Your task to perform on an android device: Open Reddit.com Image 0: 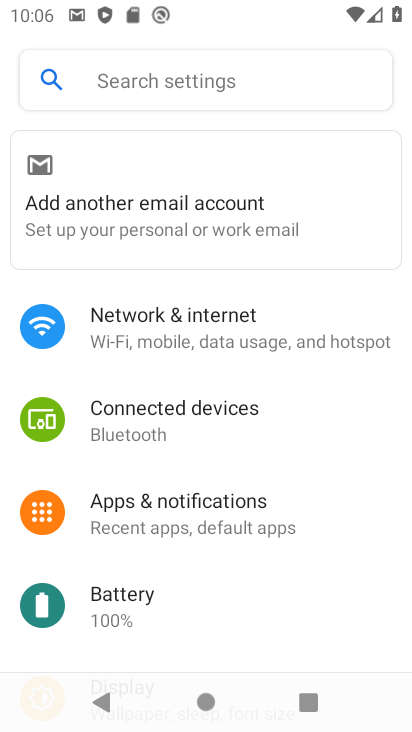
Step 0: press home button
Your task to perform on an android device: Open Reddit.com Image 1: 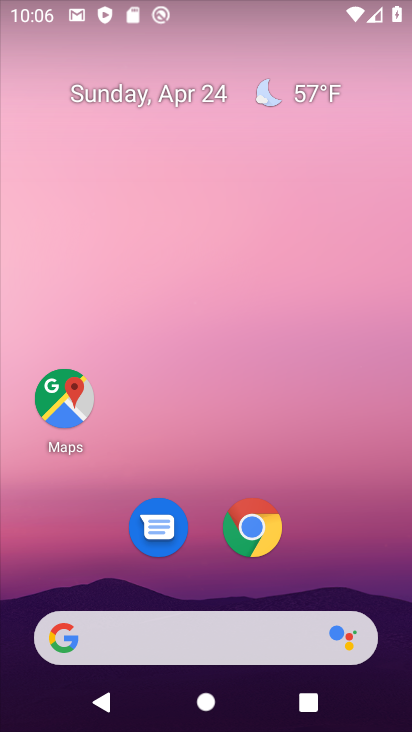
Step 1: drag from (246, 715) to (251, 14)
Your task to perform on an android device: Open Reddit.com Image 2: 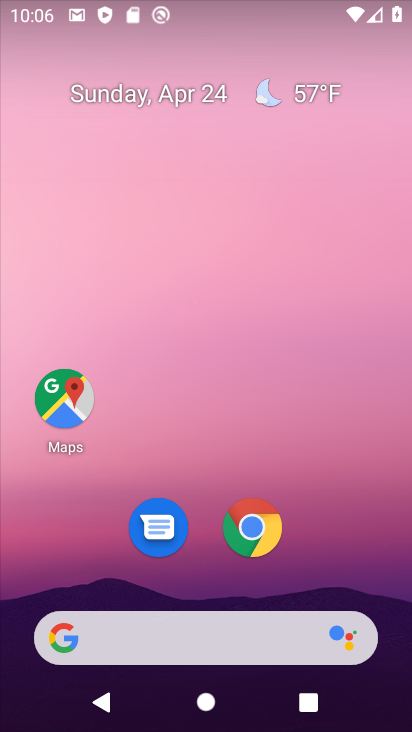
Step 2: drag from (271, 602) to (229, 90)
Your task to perform on an android device: Open Reddit.com Image 3: 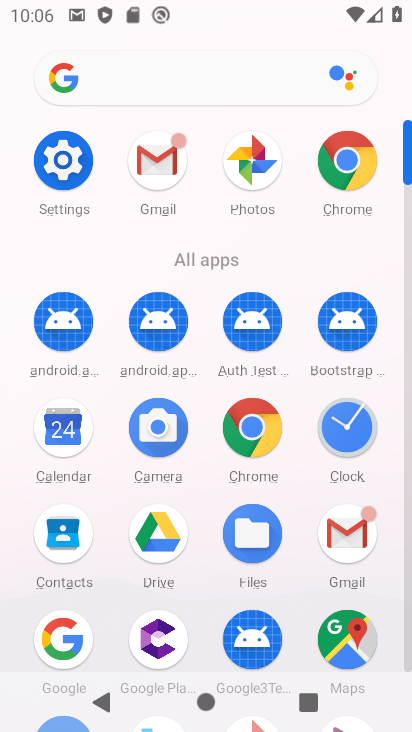
Step 3: click (348, 161)
Your task to perform on an android device: Open Reddit.com Image 4: 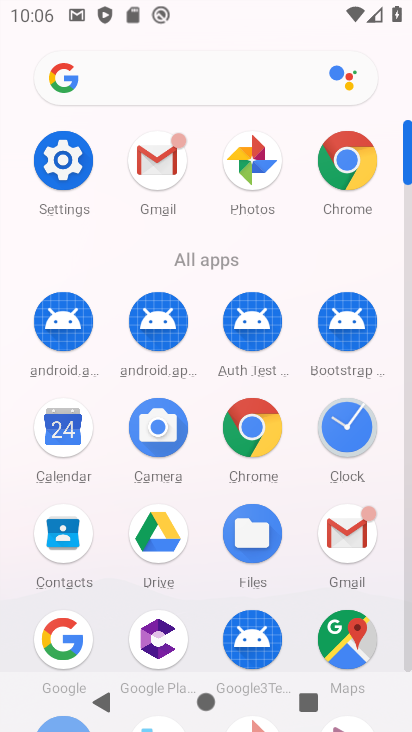
Step 4: click (357, 174)
Your task to perform on an android device: Open Reddit.com Image 5: 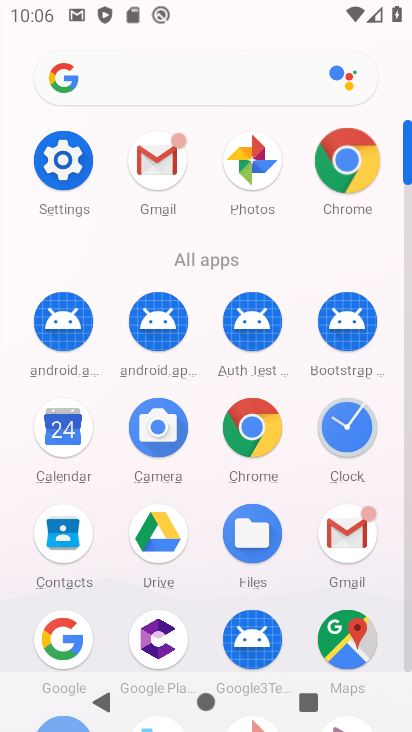
Step 5: click (359, 175)
Your task to perform on an android device: Open Reddit.com Image 6: 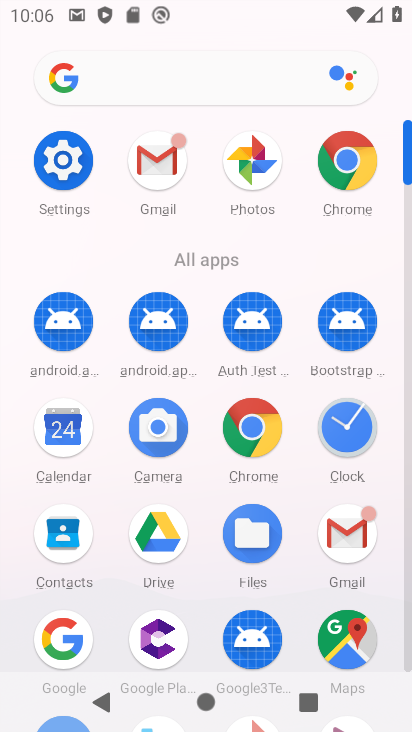
Step 6: click (347, 147)
Your task to perform on an android device: Open Reddit.com Image 7: 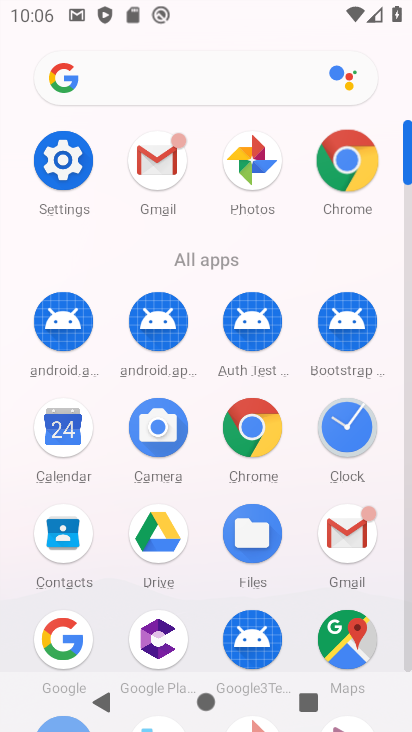
Step 7: click (347, 148)
Your task to perform on an android device: Open Reddit.com Image 8: 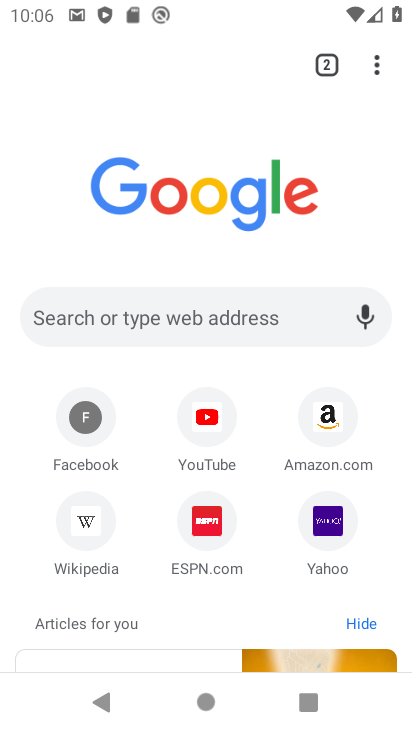
Step 8: click (86, 314)
Your task to perform on an android device: Open Reddit.com Image 9: 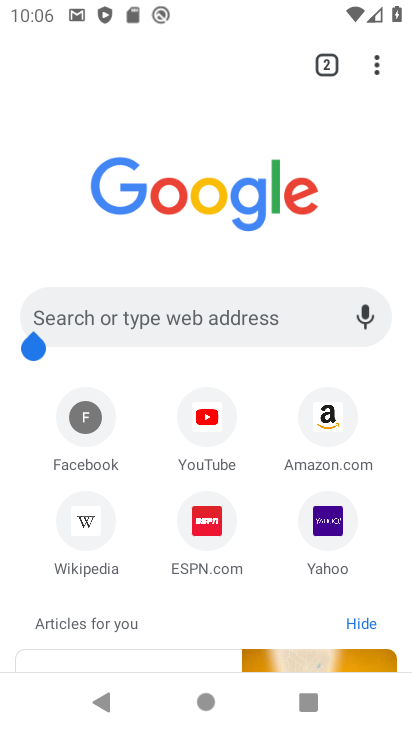
Step 9: click (86, 314)
Your task to perform on an android device: Open Reddit.com Image 10: 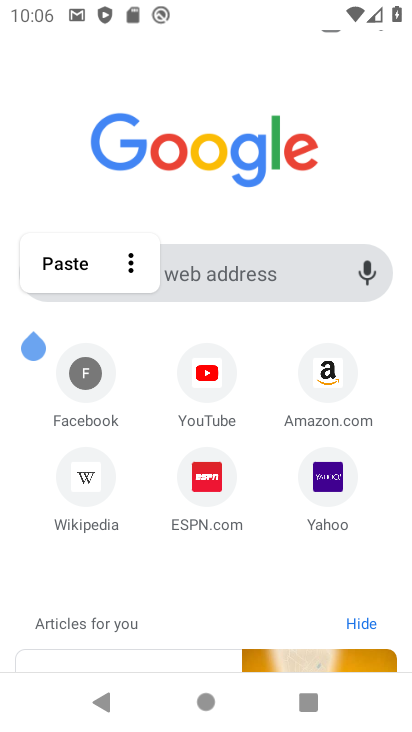
Step 10: click (86, 314)
Your task to perform on an android device: Open Reddit.com Image 11: 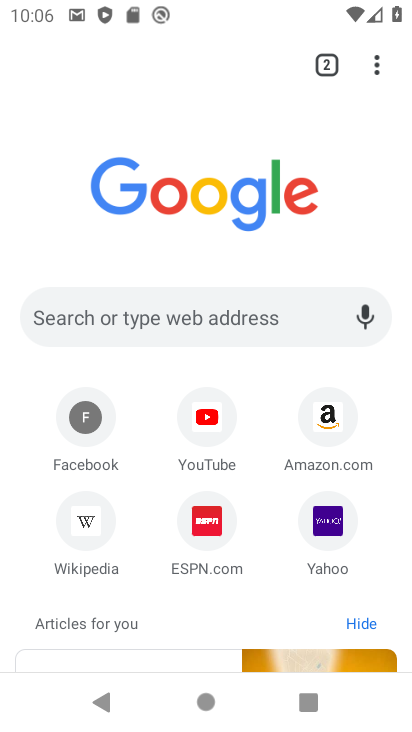
Step 11: click (86, 314)
Your task to perform on an android device: Open Reddit.com Image 12: 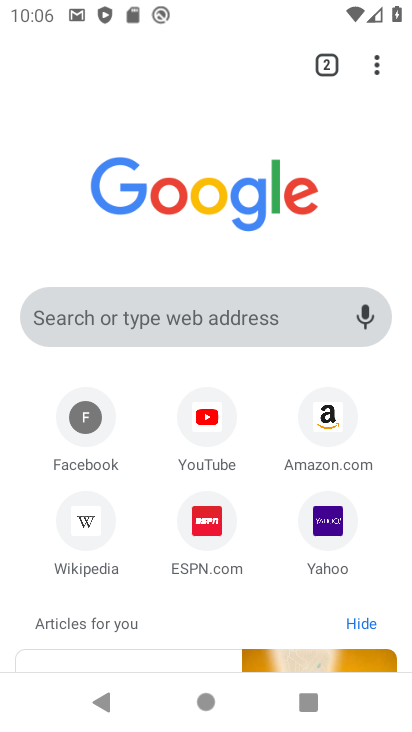
Step 12: click (86, 315)
Your task to perform on an android device: Open Reddit.com Image 13: 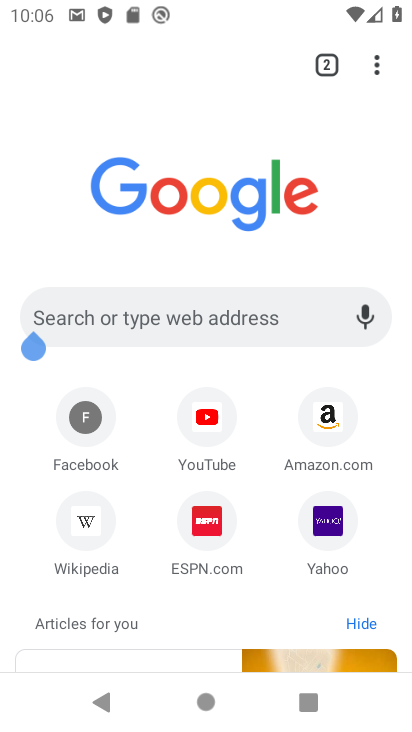
Step 13: click (90, 319)
Your task to perform on an android device: Open Reddit.com Image 14: 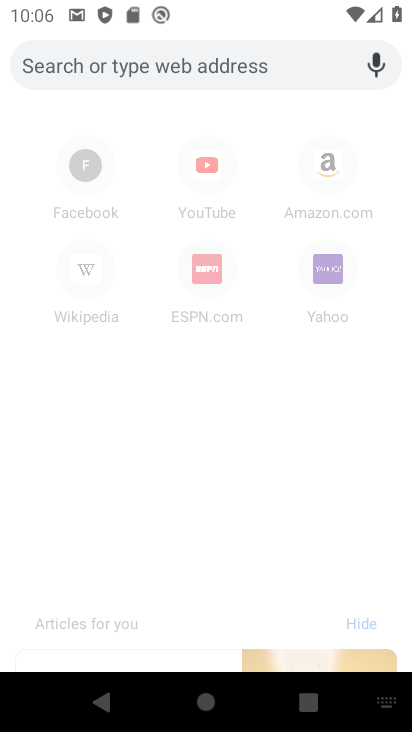
Step 14: click (96, 346)
Your task to perform on an android device: Open Reddit.com Image 15: 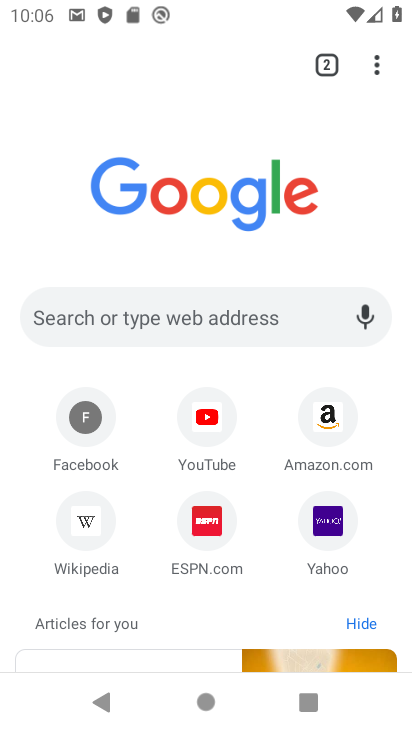
Step 15: click (59, 312)
Your task to perform on an android device: Open Reddit.com Image 16: 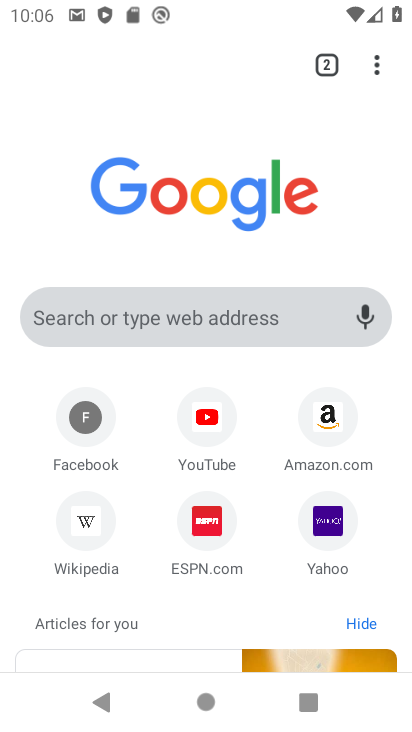
Step 16: click (68, 301)
Your task to perform on an android device: Open Reddit.com Image 17: 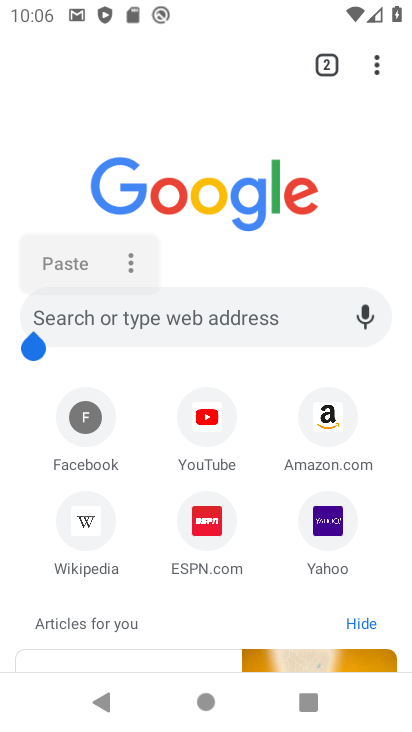
Step 17: click (79, 308)
Your task to perform on an android device: Open Reddit.com Image 18: 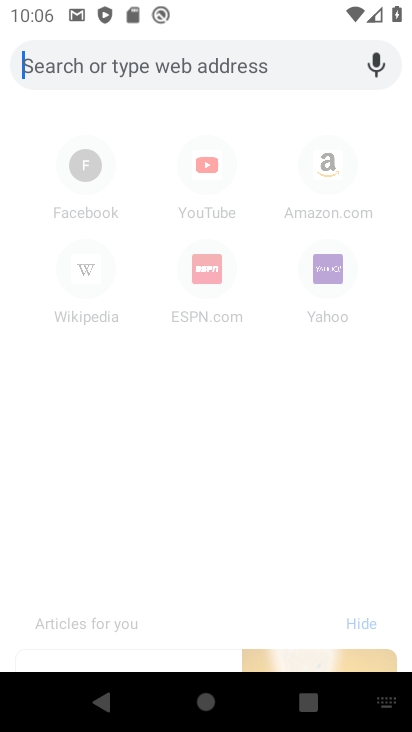
Step 18: type "www.reddit.com"
Your task to perform on an android device: Open Reddit.com Image 19: 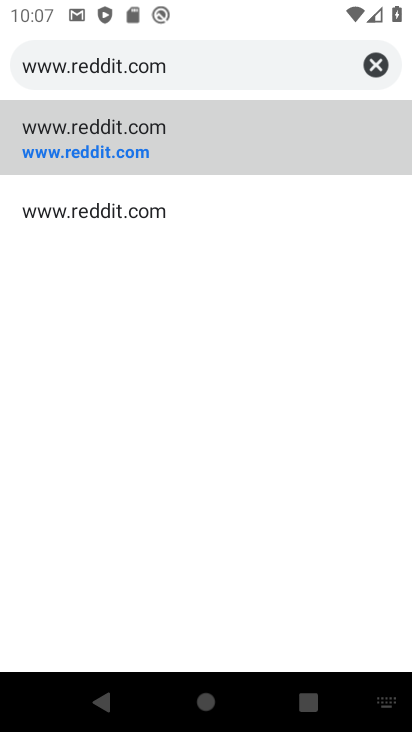
Step 19: click (84, 134)
Your task to perform on an android device: Open Reddit.com Image 20: 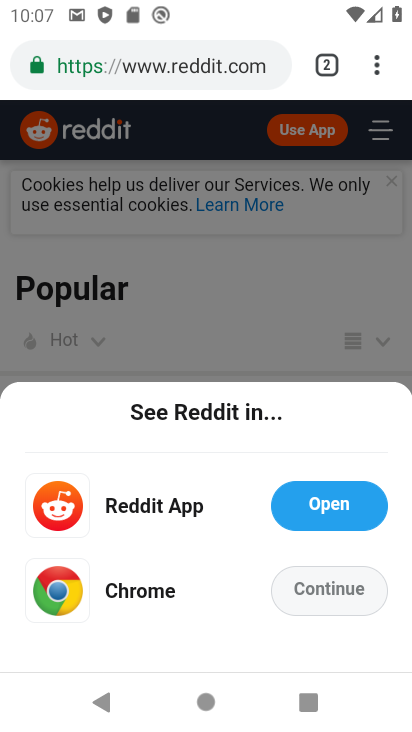
Step 20: task complete